Your task to perform on an android device: Open calendar and show me the fourth week of next month Image 0: 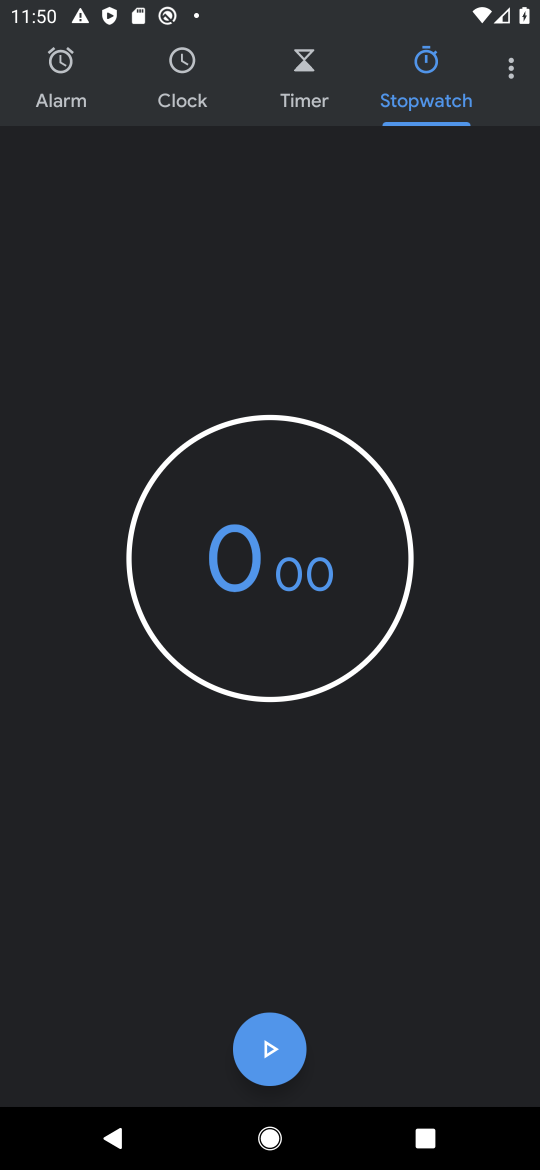
Step 0: press home button
Your task to perform on an android device: Open calendar and show me the fourth week of next month Image 1: 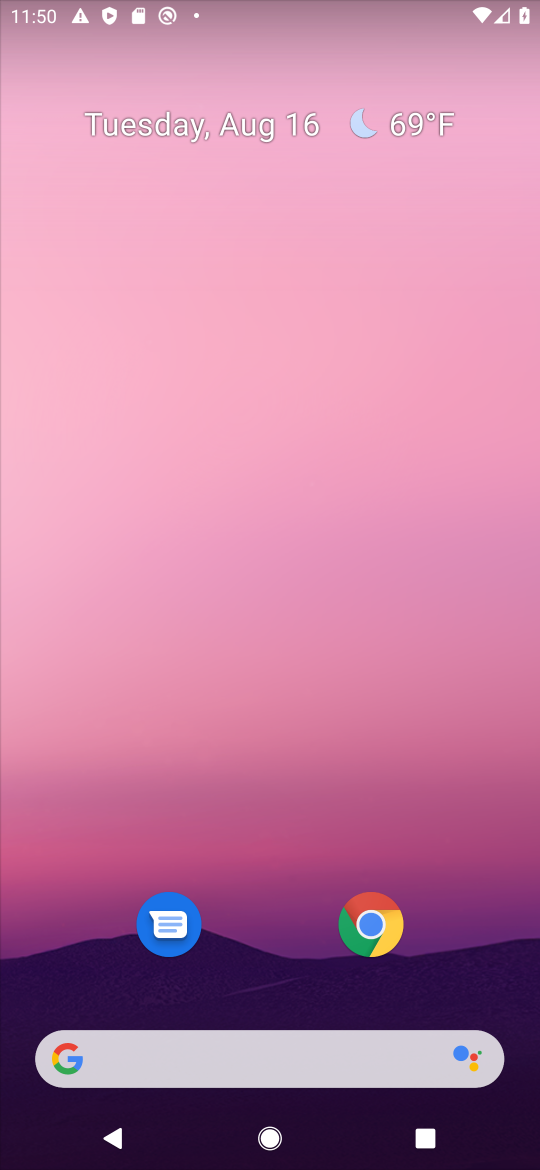
Step 1: click (104, 136)
Your task to perform on an android device: Open calendar and show me the fourth week of next month Image 2: 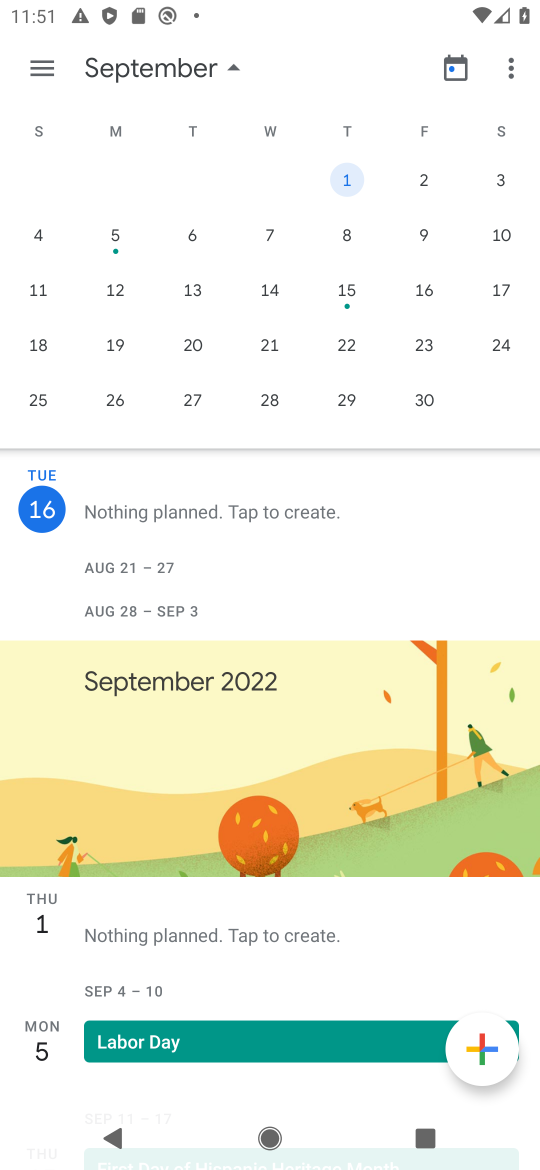
Step 2: drag from (494, 418) to (98, 416)
Your task to perform on an android device: Open calendar and show me the fourth week of next month Image 3: 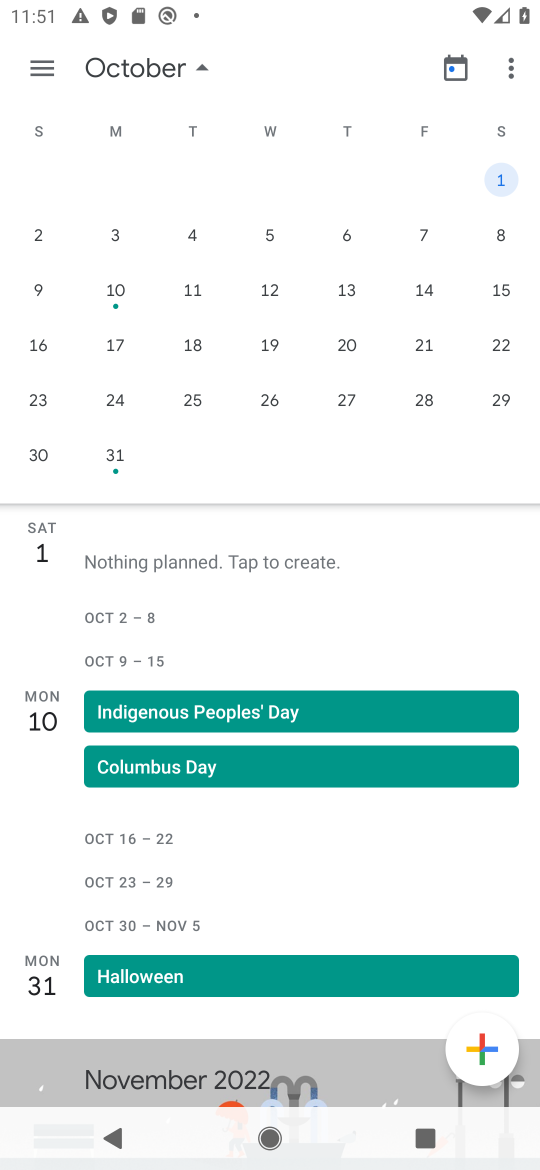
Step 3: drag from (43, 429) to (474, 436)
Your task to perform on an android device: Open calendar and show me the fourth week of next month Image 4: 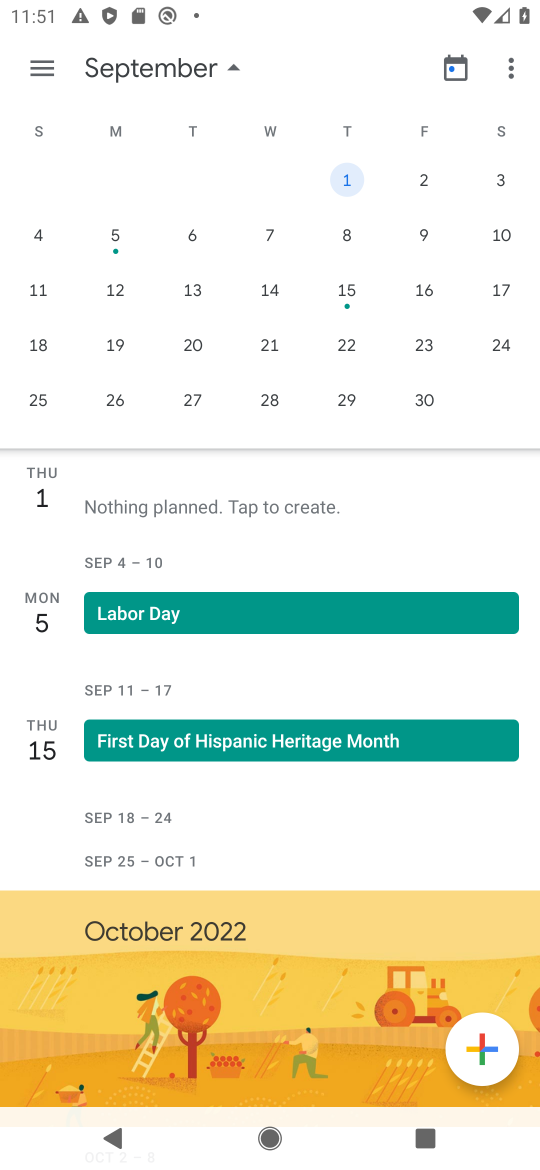
Step 4: click (346, 332)
Your task to perform on an android device: Open calendar and show me the fourth week of next month Image 5: 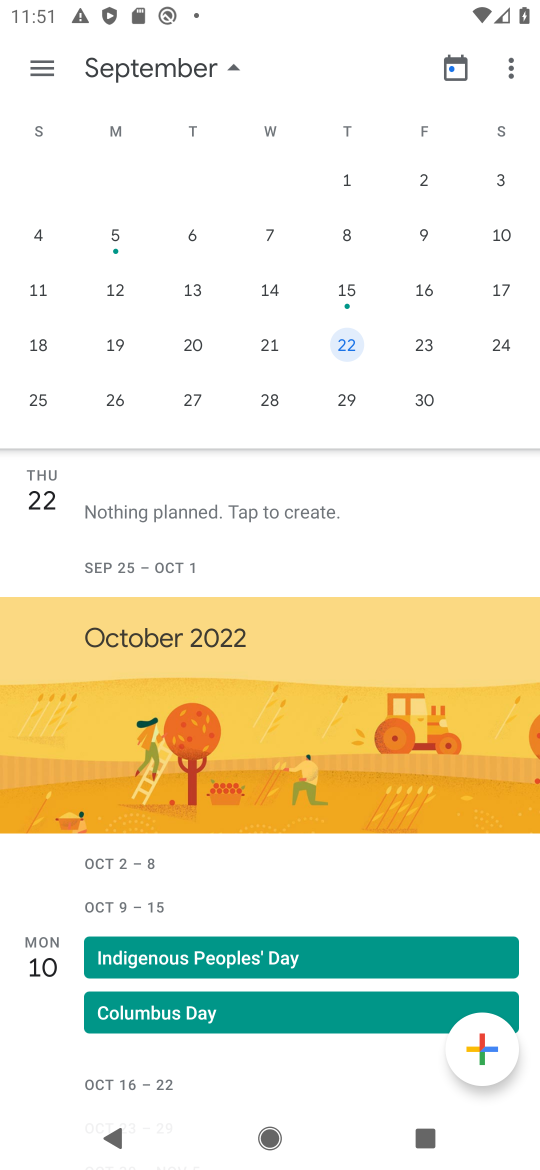
Step 5: task complete